Your task to perform on an android device: Search for Mexican restaurants on Maps Image 0: 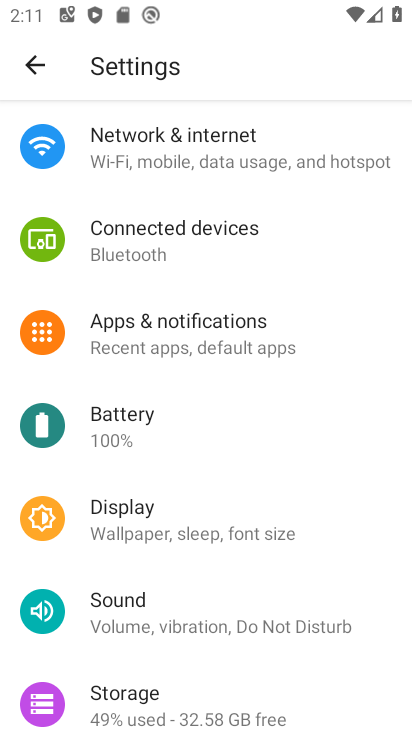
Step 0: press home button
Your task to perform on an android device: Search for Mexican restaurants on Maps Image 1: 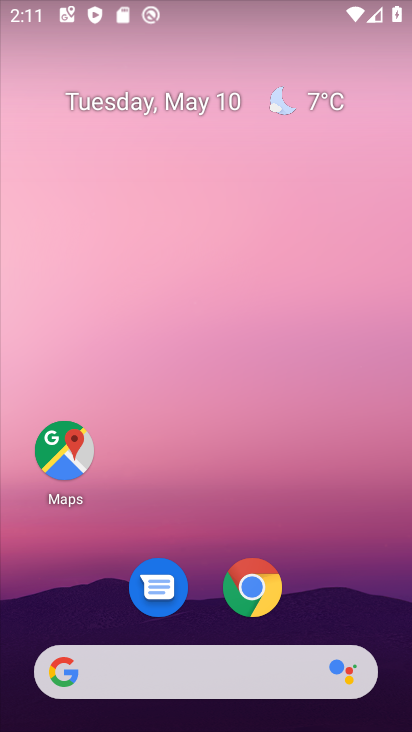
Step 1: click (76, 442)
Your task to perform on an android device: Search for Mexican restaurants on Maps Image 2: 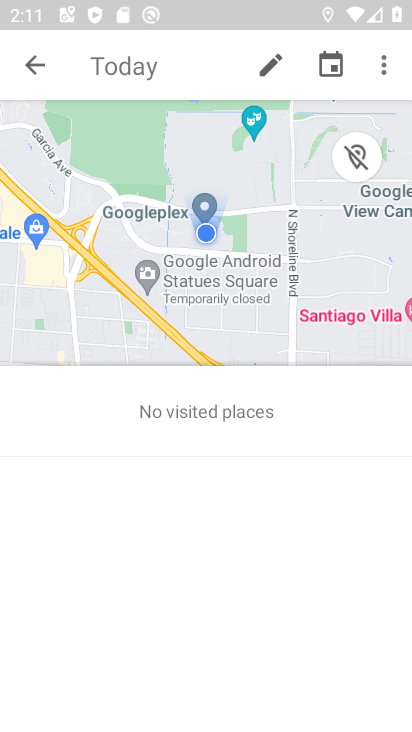
Step 2: click (23, 54)
Your task to perform on an android device: Search for Mexican restaurants on Maps Image 3: 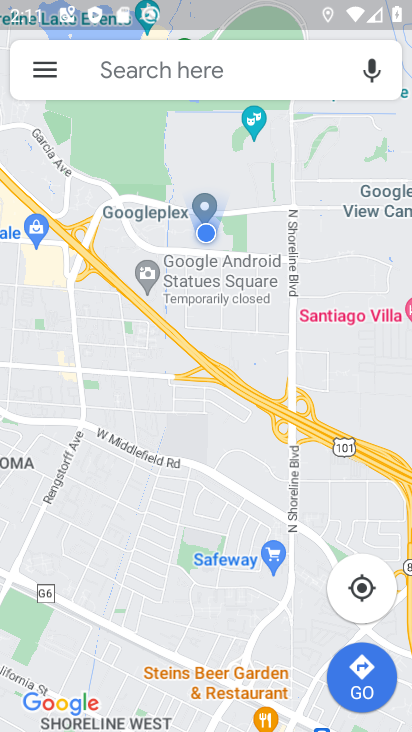
Step 3: click (173, 79)
Your task to perform on an android device: Search for Mexican restaurants on Maps Image 4: 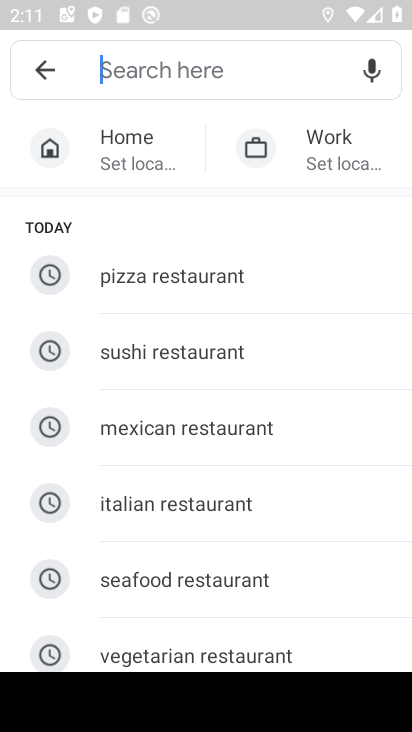
Step 4: click (214, 424)
Your task to perform on an android device: Search for Mexican restaurants on Maps Image 5: 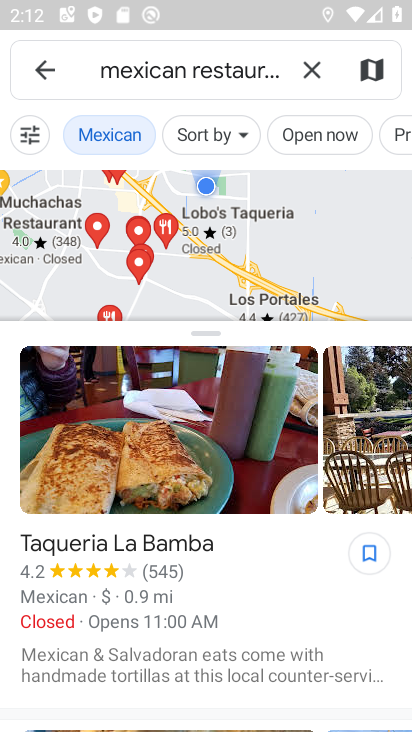
Step 5: task complete